Your task to perform on an android device: turn off picture-in-picture Image 0: 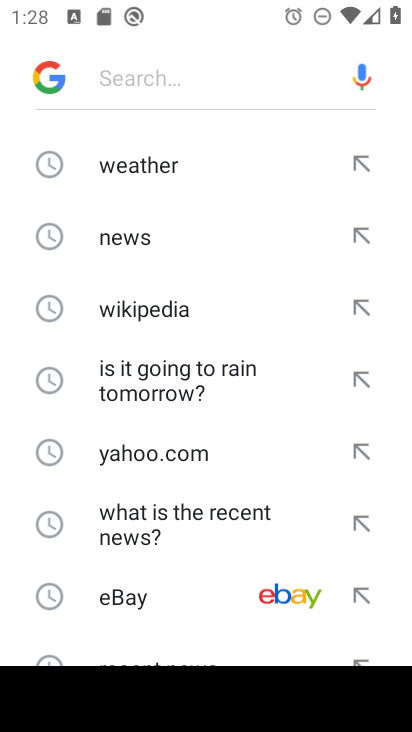
Step 0: press home button
Your task to perform on an android device: turn off picture-in-picture Image 1: 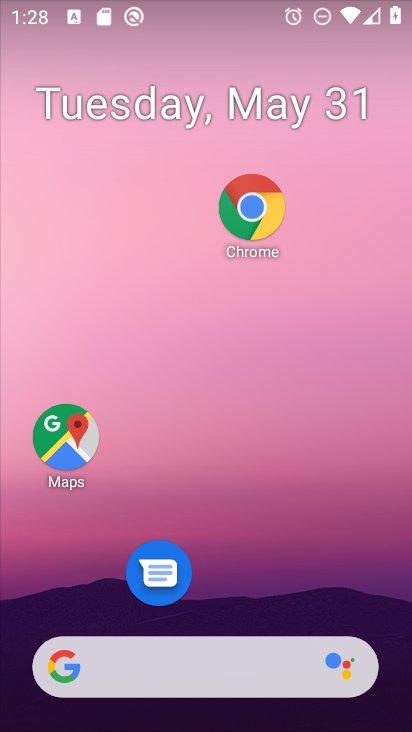
Step 1: drag from (271, 691) to (258, 290)
Your task to perform on an android device: turn off picture-in-picture Image 2: 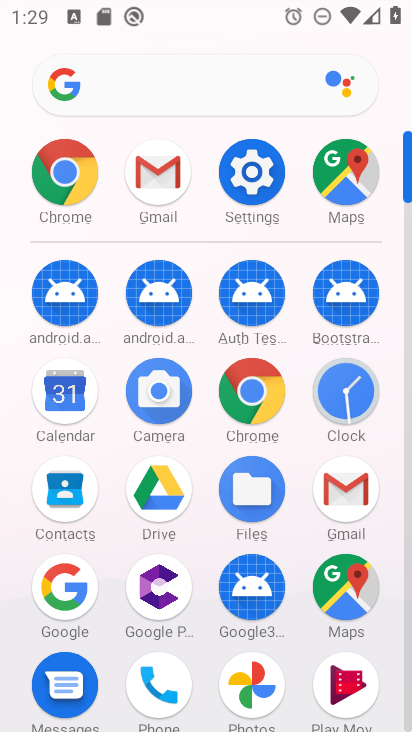
Step 2: click (264, 198)
Your task to perform on an android device: turn off picture-in-picture Image 3: 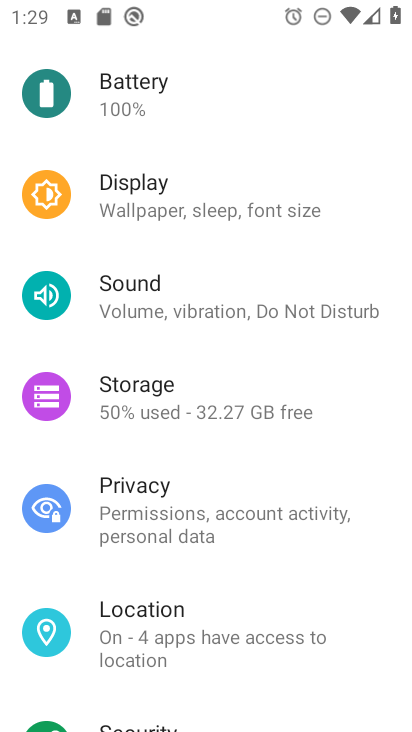
Step 3: drag from (136, 359) to (215, 644)
Your task to perform on an android device: turn off picture-in-picture Image 4: 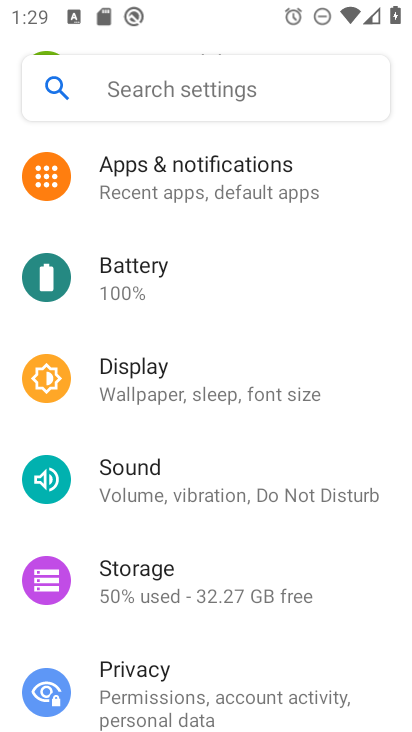
Step 4: drag from (198, 221) to (238, 583)
Your task to perform on an android device: turn off picture-in-picture Image 5: 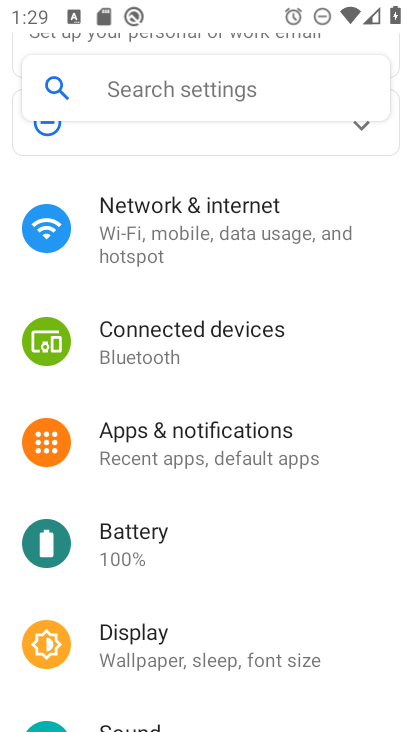
Step 5: click (212, 466)
Your task to perform on an android device: turn off picture-in-picture Image 6: 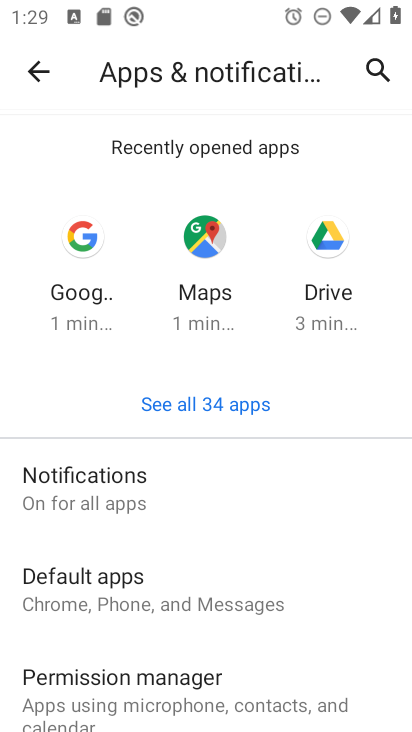
Step 6: drag from (201, 543) to (186, 263)
Your task to perform on an android device: turn off picture-in-picture Image 7: 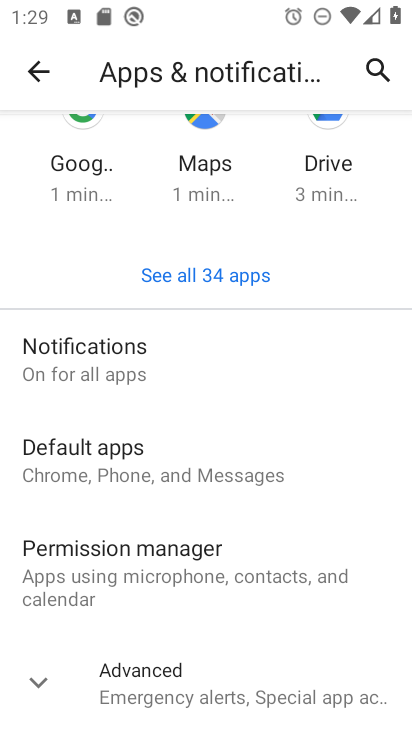
Step 7: click (164, 700)
Your task to perform on an android device: turn off picture-in-picture Image 8: 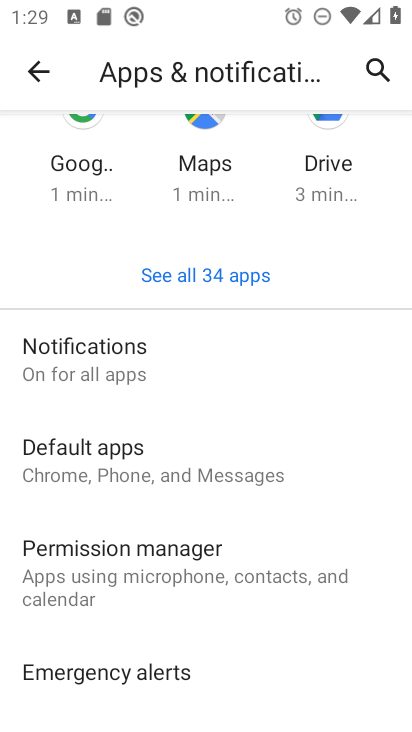
Step 8: drag from (147, 552) to (223, 15)
Your task to perform on an android device: turn off picture-in-picture Image 9: 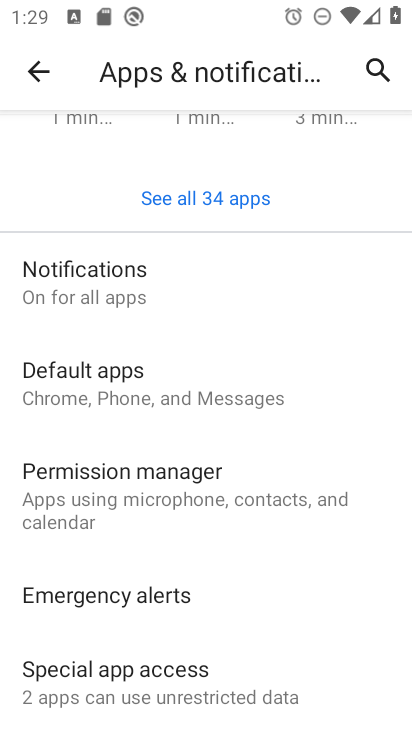
Step 9: click (144, 668)
Your task to perform on an android device: turn off picture-in-picture Image 10: 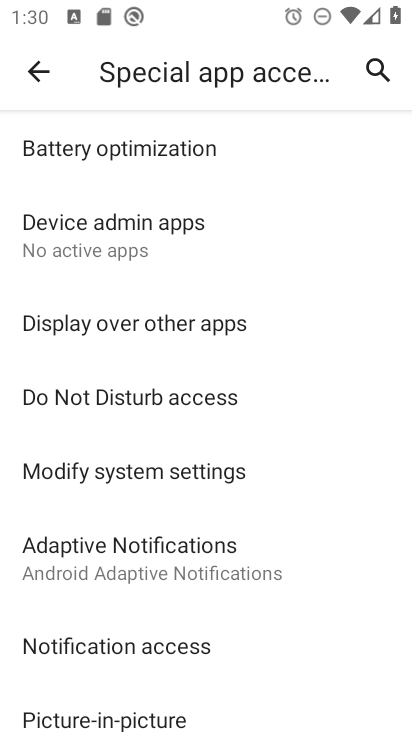
Step 10: drag from (215, 670) to (214, 325)
Your task to perform on an android device: turn off picture-in-picture Image 11: 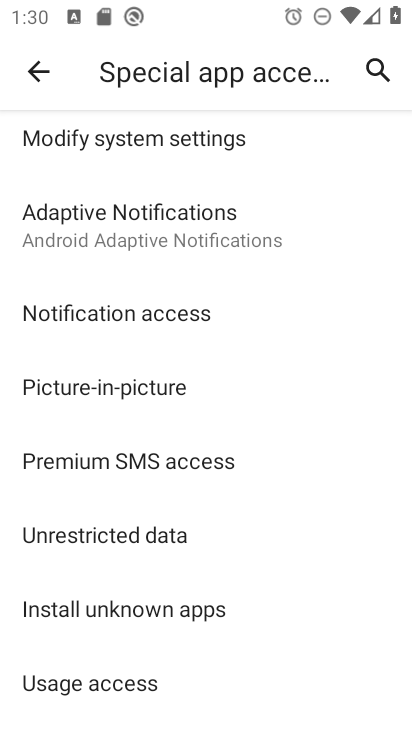
Step 11: click (169, 385)
Your task to perform on an android device: turn off picture-in-picture Image 12: 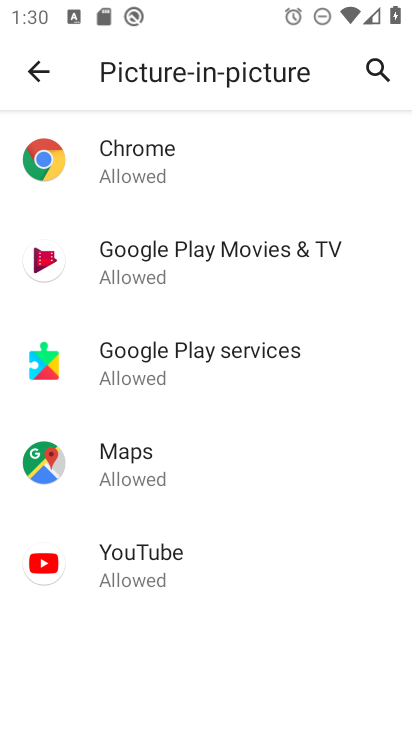
Step 12: click (185, 147)
Your task to perform on an android device: turn off picture-in-picture Image 13: 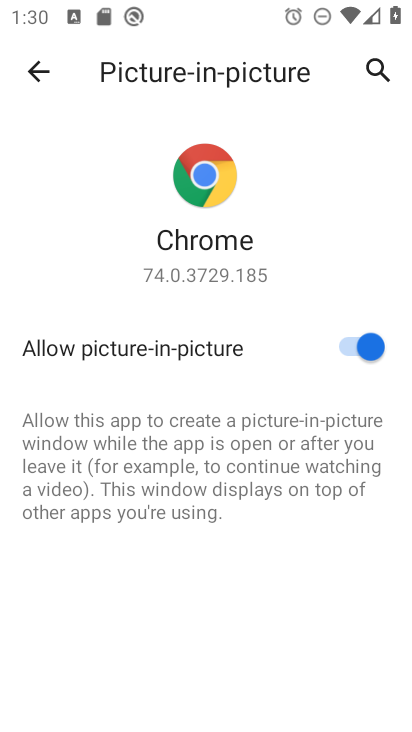
Step 13: click (346, 346)
Your task to perform on an android device: turn off picture-in-picture Image 14: 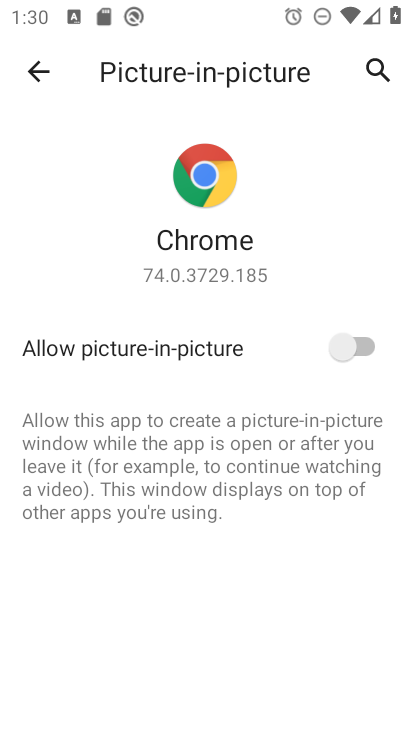
Step 14: task complete